Your task to perform on an android device: Go to Wikipedia Image 0: 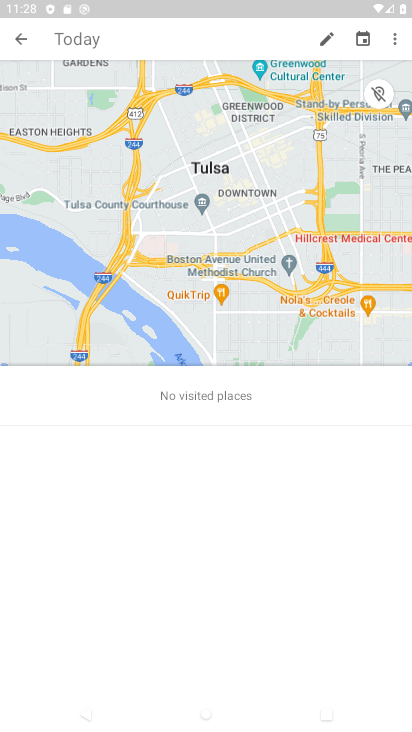
Step 0: press home button
Your task to perform on an android device: Go to Wikipedia Image 1: 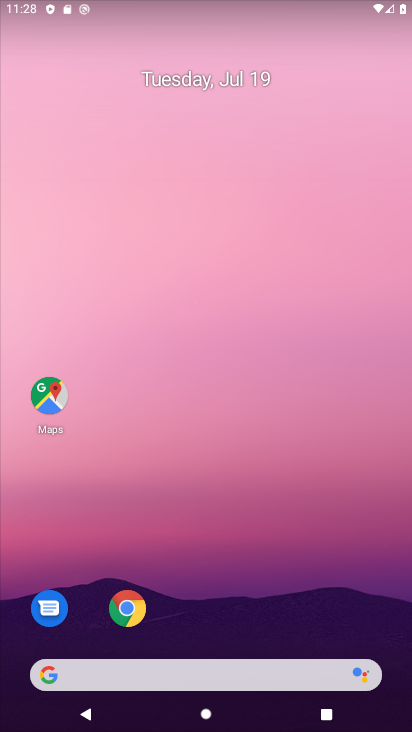
Step 1: click (49, 679)
Your task to perform on an android device: Go to Wikipedia Image 2: 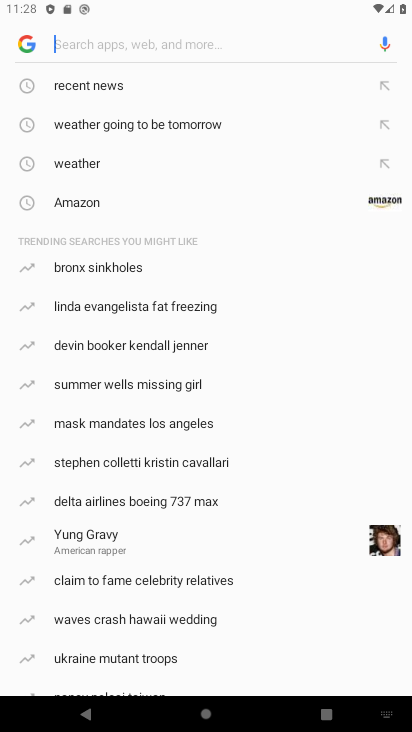
Step 2: type "Wikipedia"
Your task to perform on an android device: Go to Wikipedia Image 3: 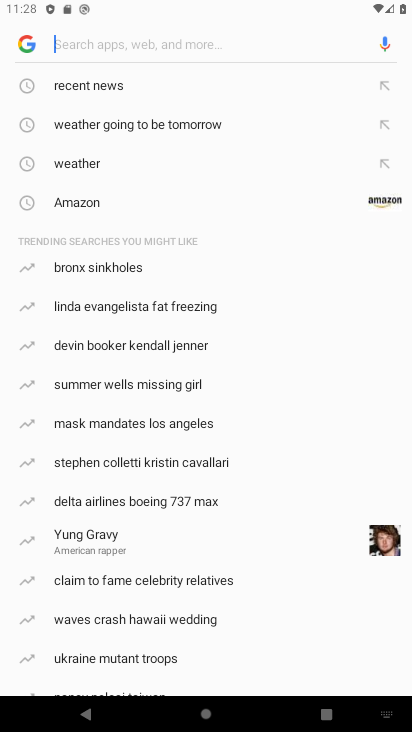
Step 3: click (122, 36)
Your task to perform on an android device: Go to Wikipedia Image 4: 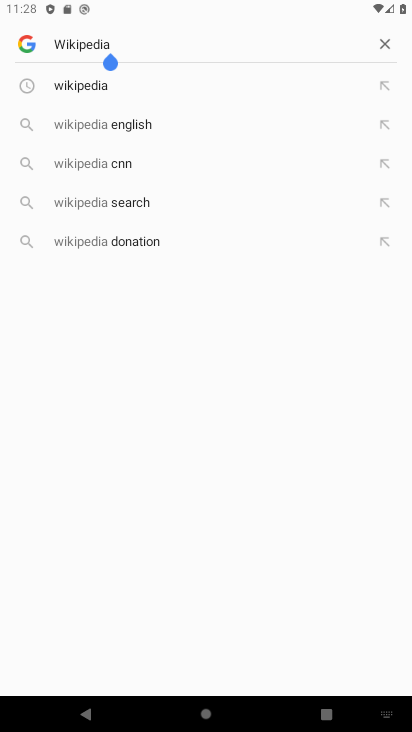
Step 4: press enter
Your task to perform on an android device: Go to Wikipedia Image 5: 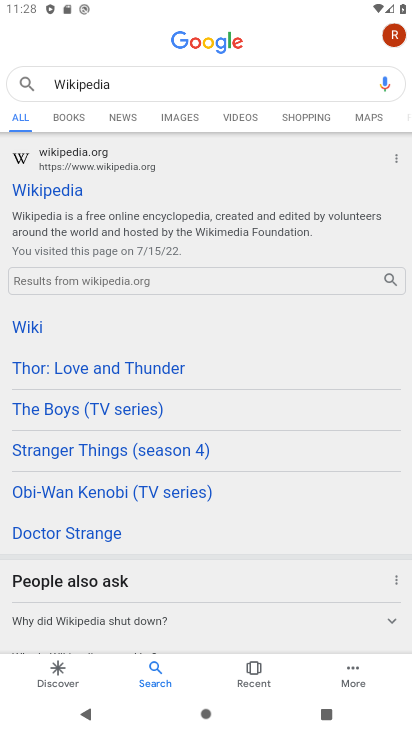
Step 5: click (54, 195)
Your task to perform on an android device: Go to Wikipedia Image 6: 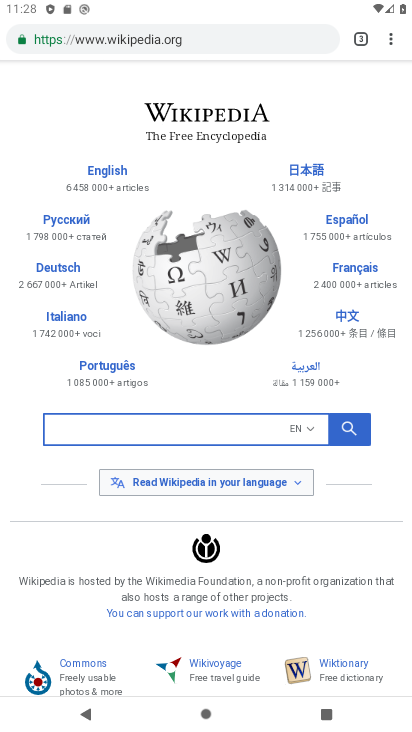
Step 6: task complete